Your task to perform on an android device: turn on priority inbox in the gmail app Image 0: 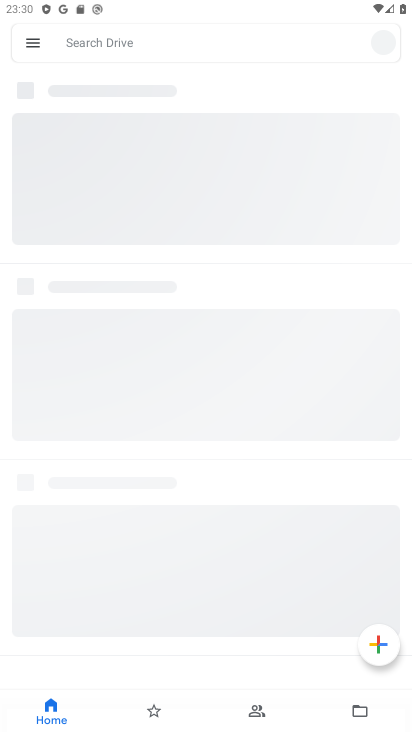
Step 0: press home button
Your task to perform on an android device: turn on priority inbox in the gmail app Image 1: 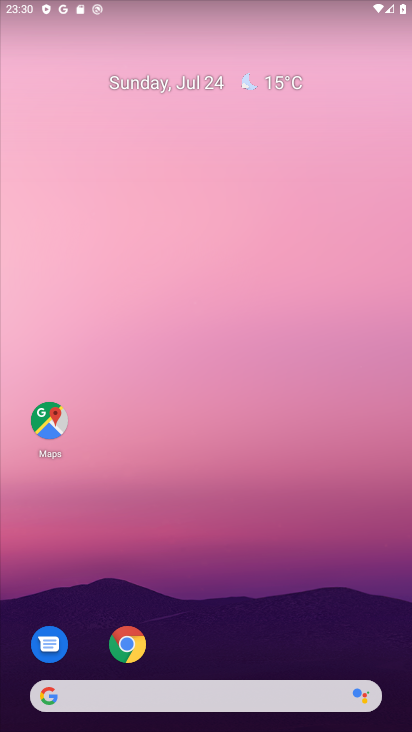
Step 1: drag from (206, 726) to (188, 195)
Your task to perform on an android device: turn on priority inbox in the gmail app Image 2: 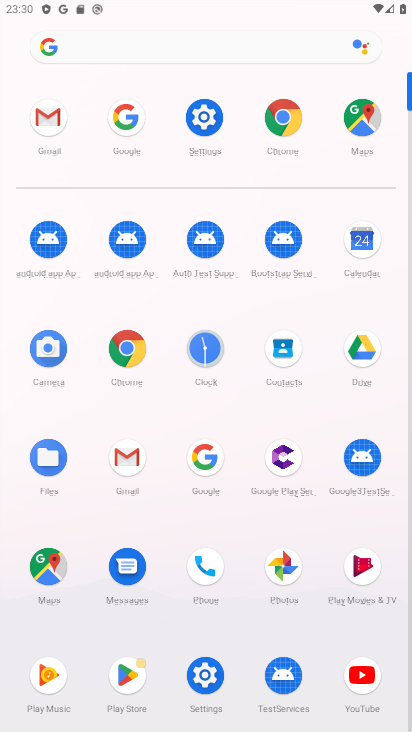
Step 2: click (132, 453)
Your task to perform on an android device: turn on priority inbox in the gmail app Image 3: 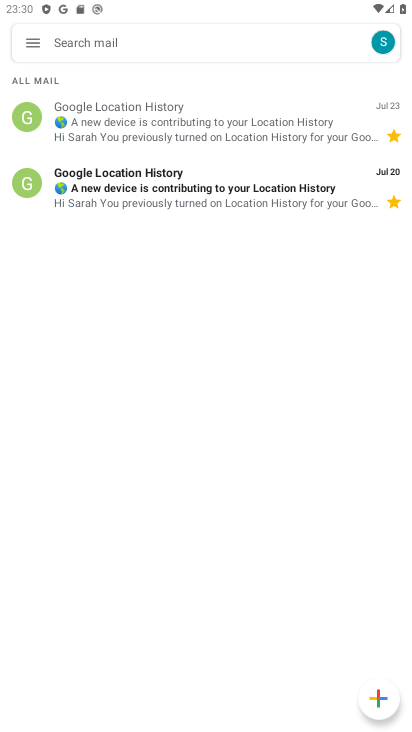
Step 3: click (31, 46)
Your task to perform on an android device: turn on priority inbox in the gmail app Image 4: 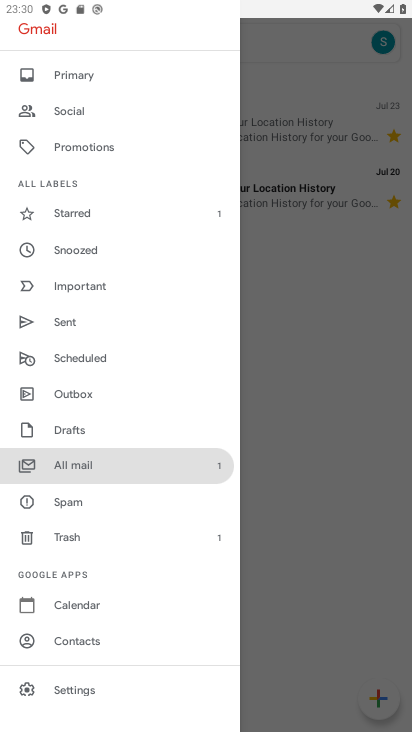
Step 4: click (72, 690)
Your task to perform on an android device: turn on priority inbox in the gmail app Image 5: 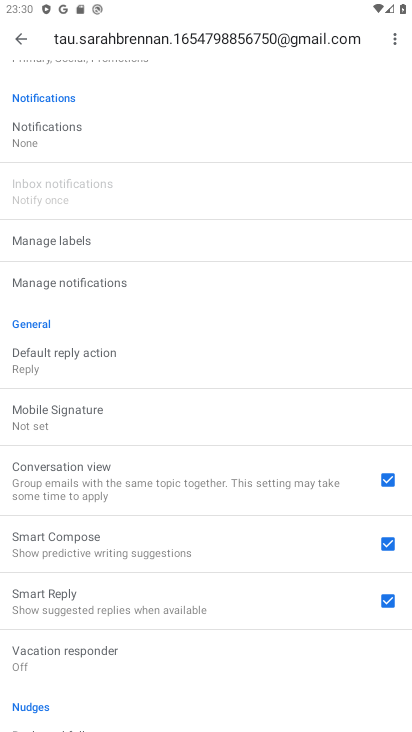
Step 5: click (81, 159)
Your task to perform on an android device: turn on priority inbox in the gmail app Image 6: 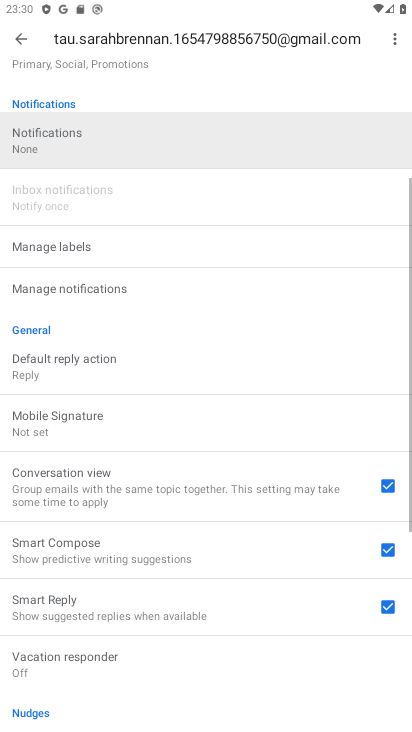
Step 6: drag from (73, 361) to (83, 579)
Your task to perform on an android device: turn on priority inbox in the gmail app Image 7: 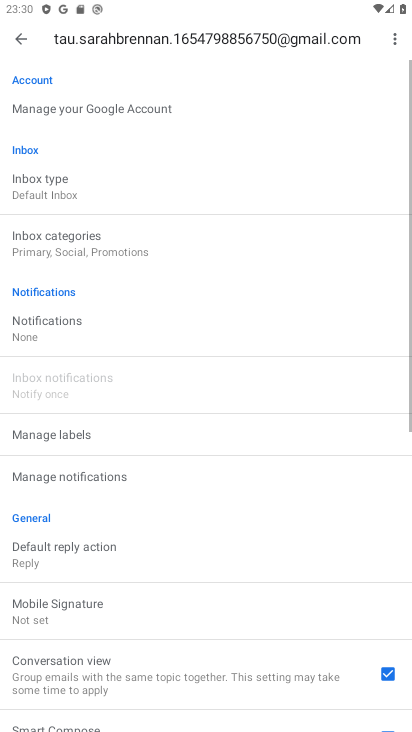
Step 7: drag from (162, 161) to (189, 428)
Your task to perform on an android device: turn on priority inbox in the gmail app Image 8: 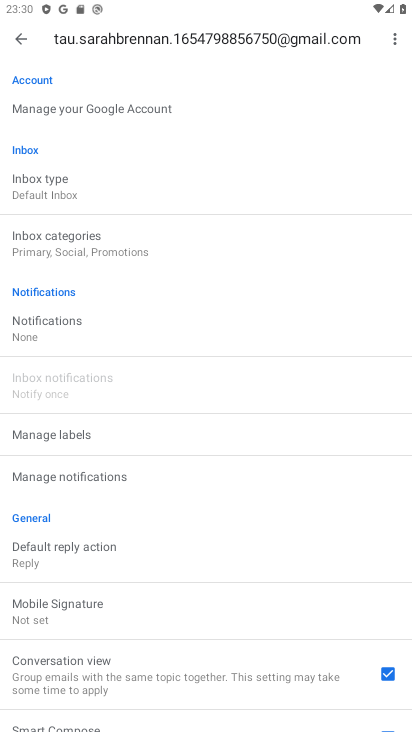
Step 8: drag from (167, 138) to (183, 381)
Your task to perform on an android device: turn on priority inbox in the gmail app Image 9: 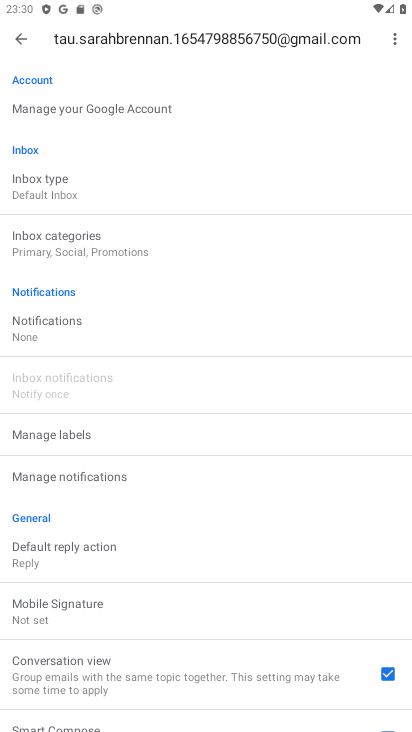
Step 9: click (58, 184)
Your task to perform on an android device: turn on priority inbox in the gmail app Image 10: 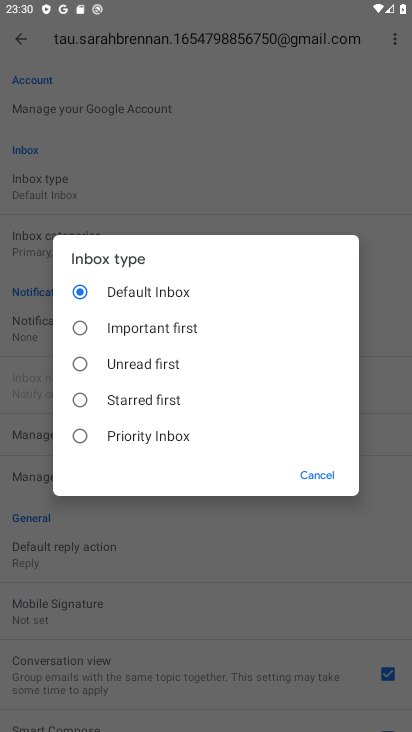
Step 10: click (79, 435)
Your task to perform on an android device: turn on priority inbox in the gmail app Image 11: 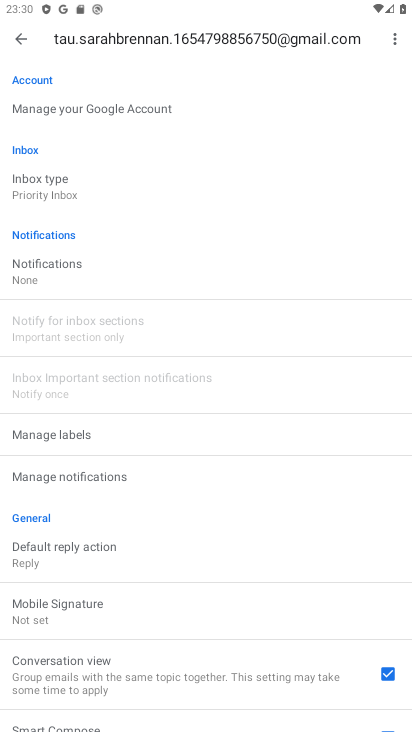
Step 11: task complete